Your task to perform on an android device: Open sound settings Image 0: 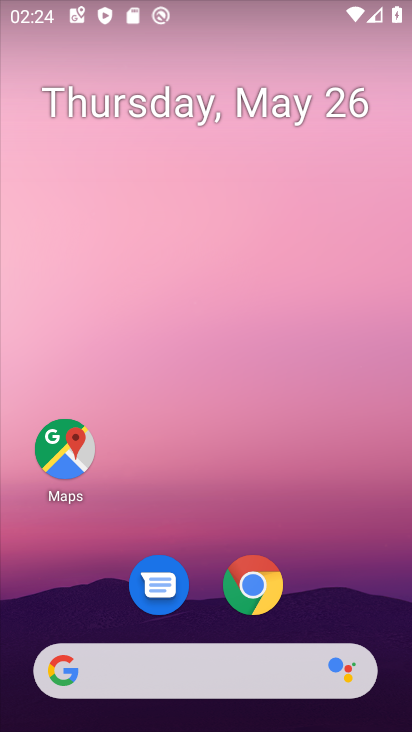
Step 0: drag from (263, 448) to (283, 26)
Your task to perform on an android device: Open sound settings Image 1: 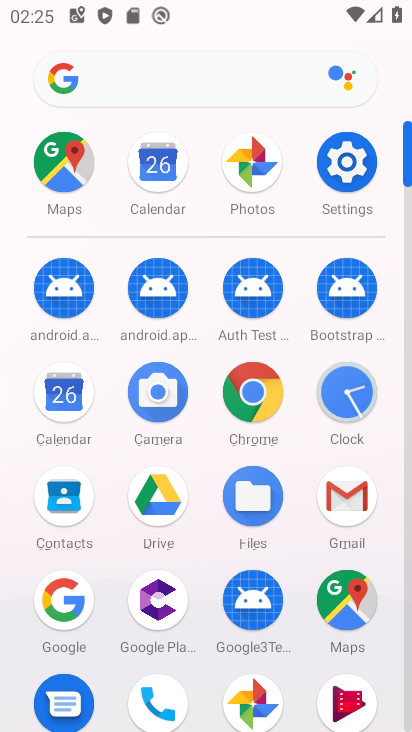
Step 1: click (349, 167)
Your task to perform on an android device: Open sound settings Image 2: 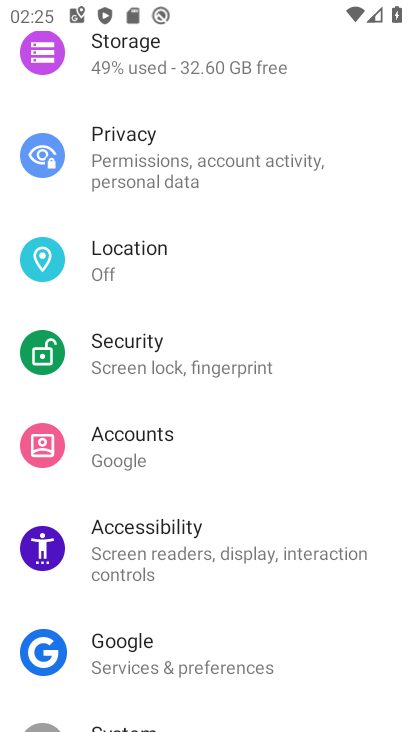
Step 2: drag from (254, 225) to (225, 571)
Your task to perform on an android device: Open sound settings Image 3: 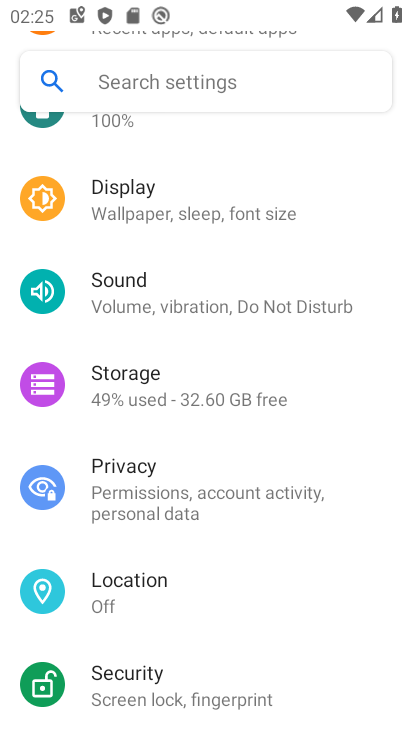
Step 3: click (223, 295)
Your task to perform on an android device: Open sound settings Image 4: 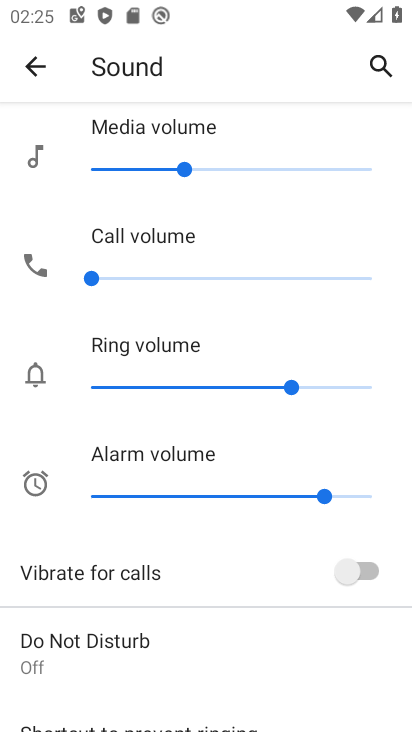
Step 4: task complete